Your task to perform on an android device: turn on javascript in the chrome app Image 0: 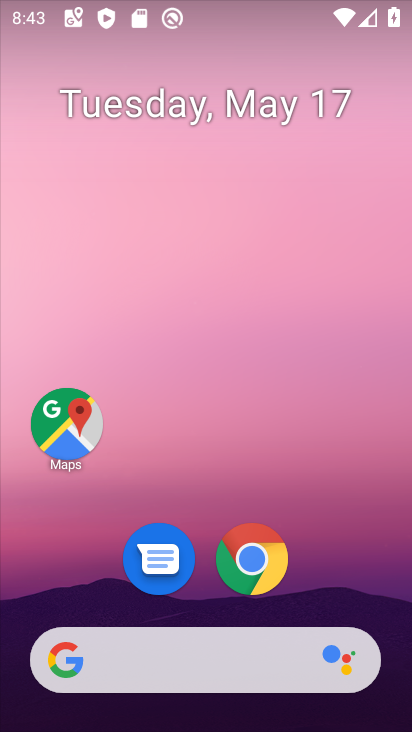
Step 0: drag from (215, 544) to (300, 97)
Your task to perform on an android device: turn on javascript in the chrome app Image 1: 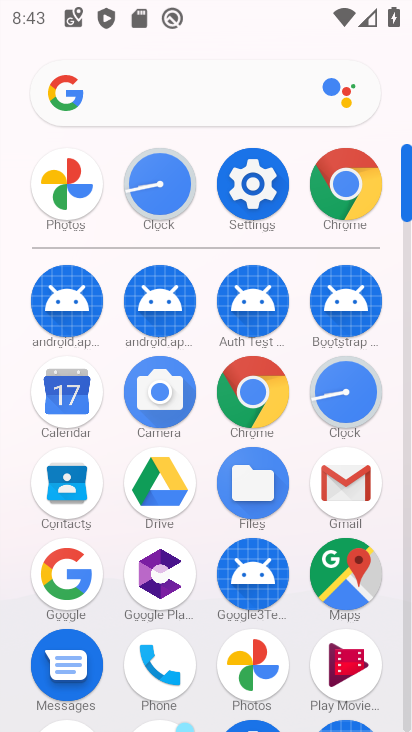
Step 1: click (358, 189)
Your task to perform on an android device: turn on javascript in the chrome app Image 2: 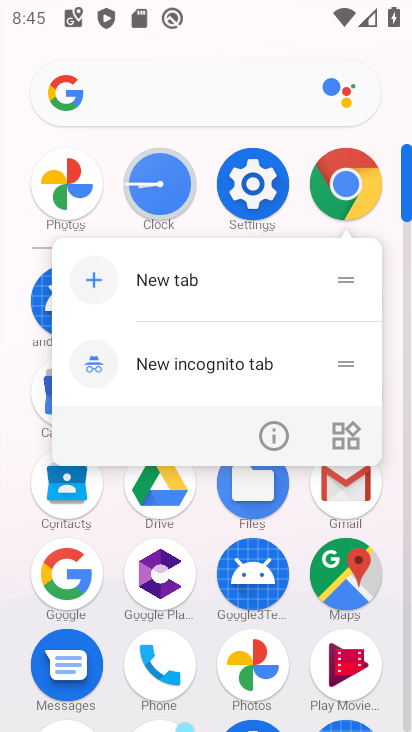
Step 2: click (363, 174)
Your task to perform on an android device: turn on javascript in the chrome app Image 3: 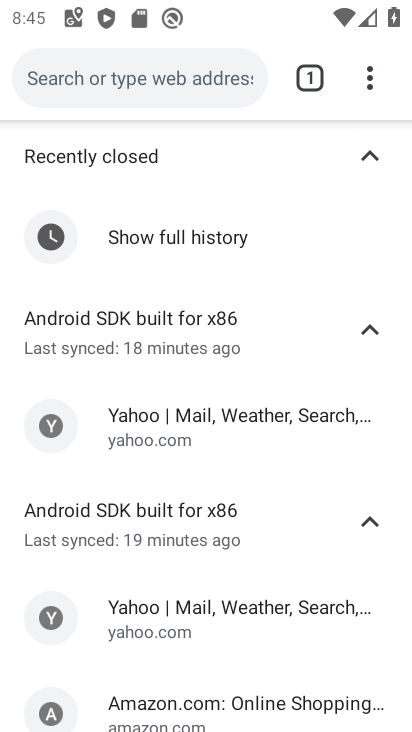
Step 3: click (378, 74)
Your task to perform on an android device: turn on javascript in the chrome app Image 4: 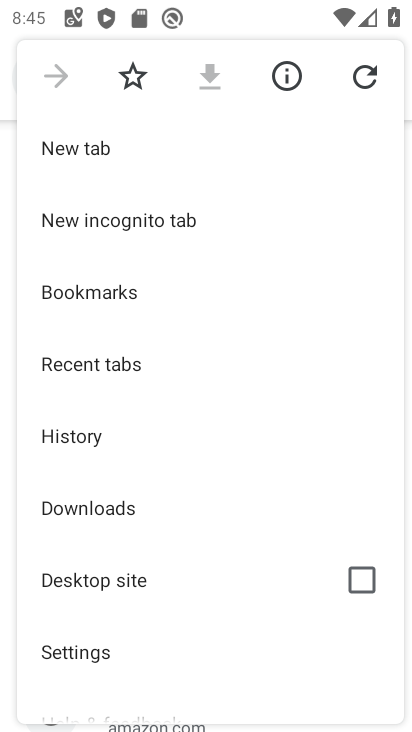
Step 4: click (88, 659)
Your task to perform on an android device: turn on javascript in the chrome app Image 5: 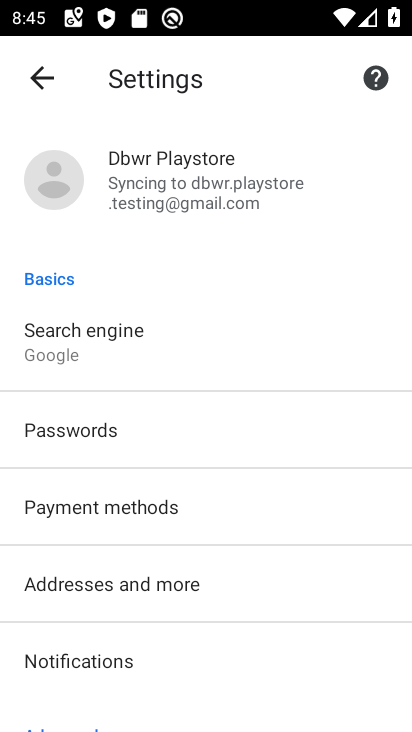
Step 5: drag from (207, 654) to (268, 126)
Your task to perform on an android device: turn on javascript in the chrome app Image 6: 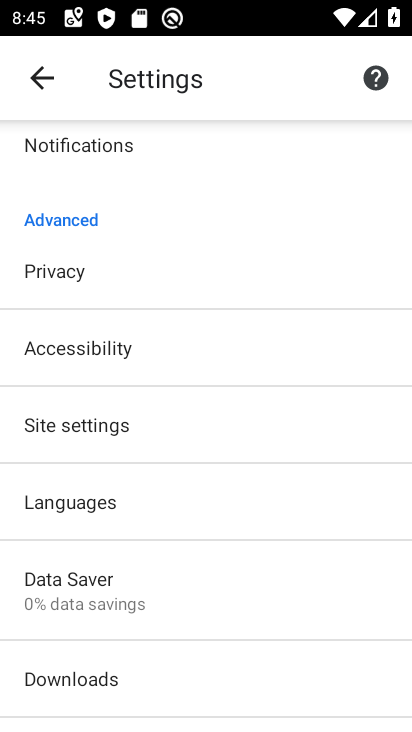
Step 6: click (107, 420)
Your task to perform on an android device: turn on javascript in the chrome app Image 7: 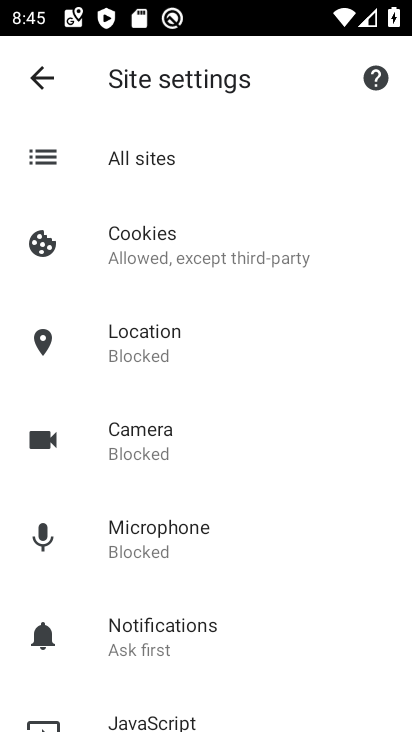
Step 7: click (173, 715)
Your task to perform on an android device: turn on javascript in the chrome app Image 8: 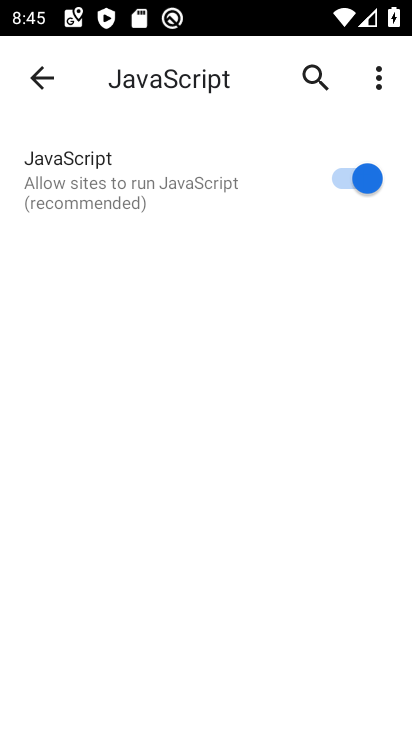
Step 8: task complete